Your task to perform on an android device: turn on showing notifications on the lock screen Image 0: 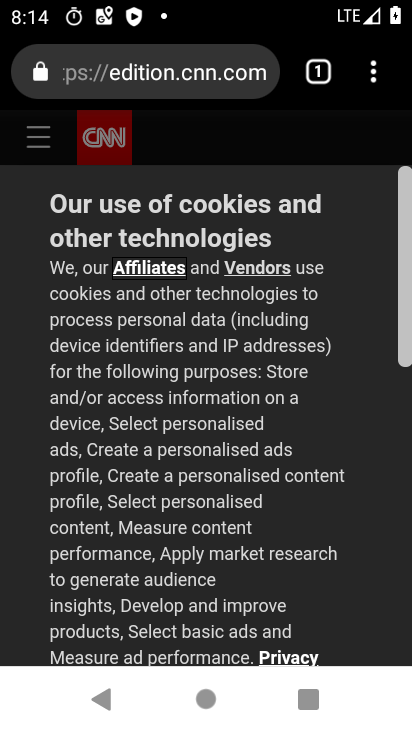
Step 0: press home button
Your task to perform on an android device: turn on showing notifications on the lock screen Image 1: 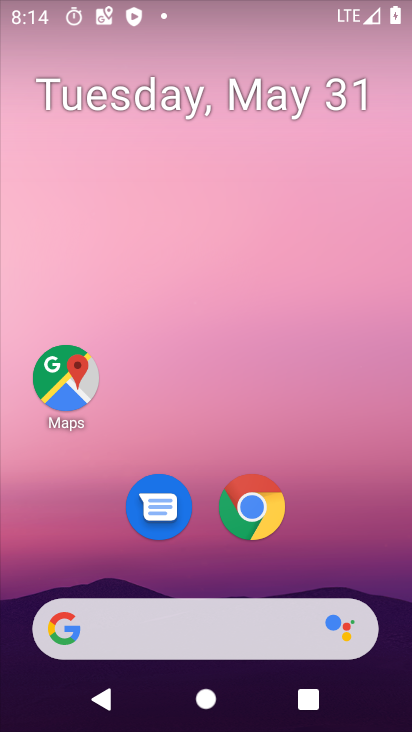
Step 1: drag from (16, 373) to (79, 240)
Your task to perform on an android device: turn on showing notifications on the lock screen Image 2: 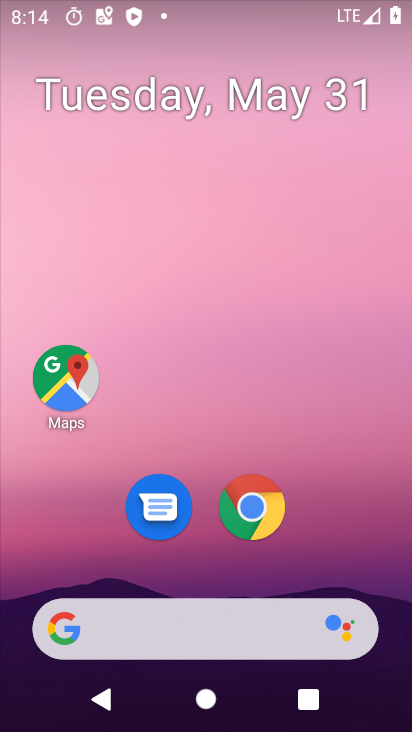
Step 2: drag from (6, 630) to (242, 77)
Your task to perform on an android device: turn on showing notifications on the lock screen Image 3: 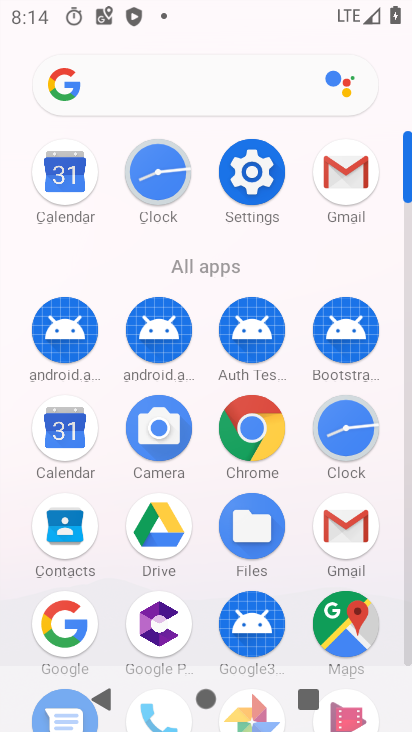
Step 3: click (253, 165)
Your task to perform on an android device: turn on showing notifications on the lock screen Image 4: 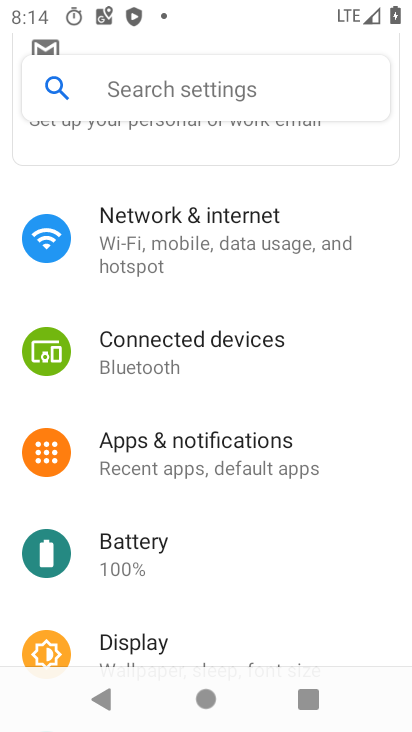
Step 4: click (149, 462)
Your task to perform on an android device: turn on showing notifications on the lock screen Image 5: 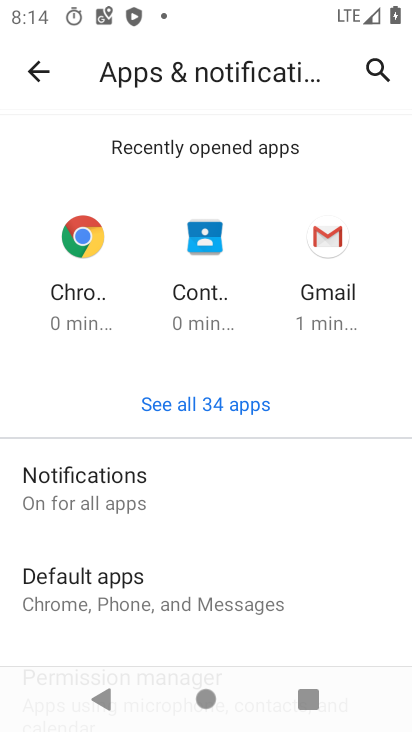
Step 5: drag from (2, 589) to (162, 255)
Your task to perform on an android device: turn on showing notifications on the lock screen Image 6: 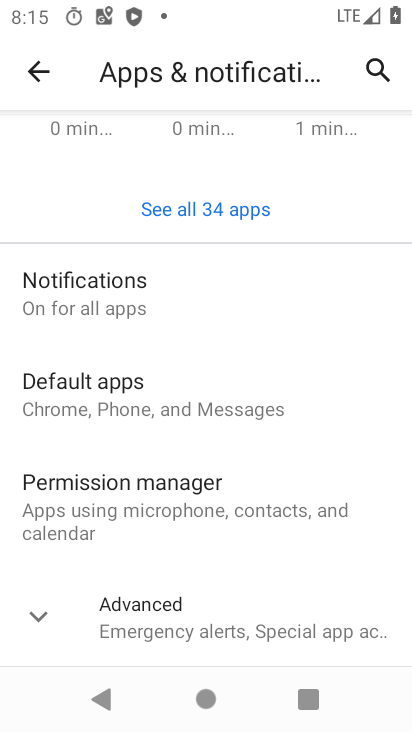
Step 6: click (39, 612)
Your task to perform on an android device: turn on showing notifications on the lock screen Image 7: 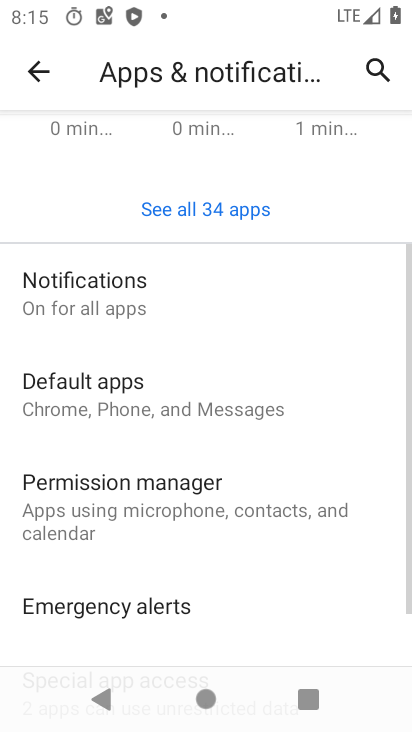
Step 7: drag from (43, 429) to (232, 137)
Your task to perform on an android device: turn on showing notifications on the lock screen Image 8: 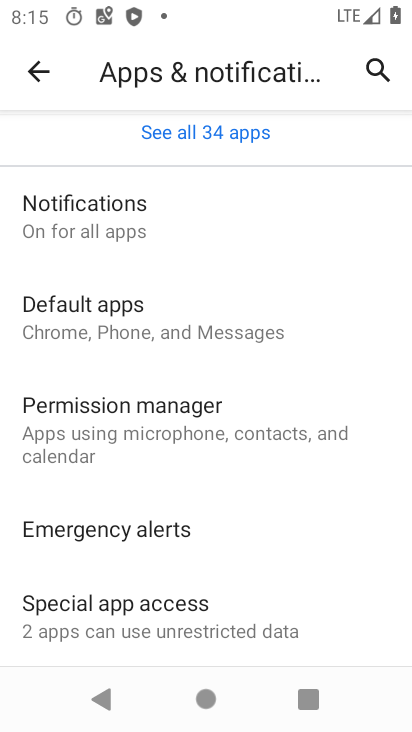
Step 8: drag from (54, 456) to (148, 240)
Your task to perform on an android device: turn on showing notifications on the lock screen Image 9: 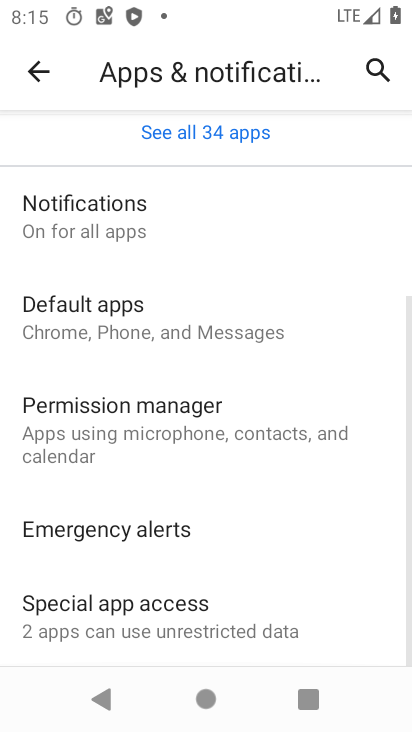
Step 9: click (134, 229)
Your task to perform on an android device: turn on showing notifications on the lock screen Image 10: 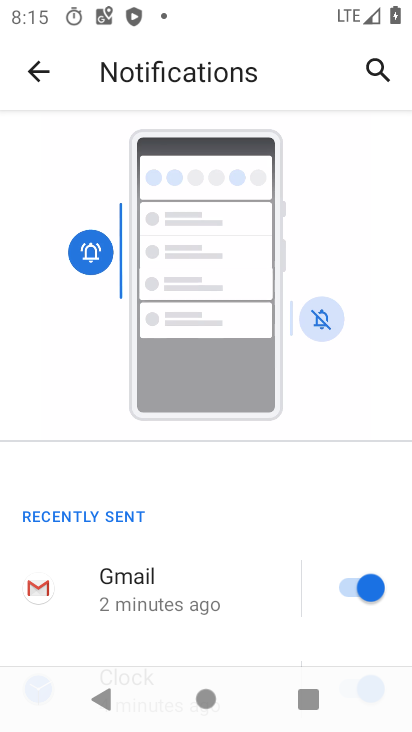
Step 10: drag from (3, 530) to (109, 165)
Your task to perform on an android device: turn on showing notifications on the lock screen Image 11: 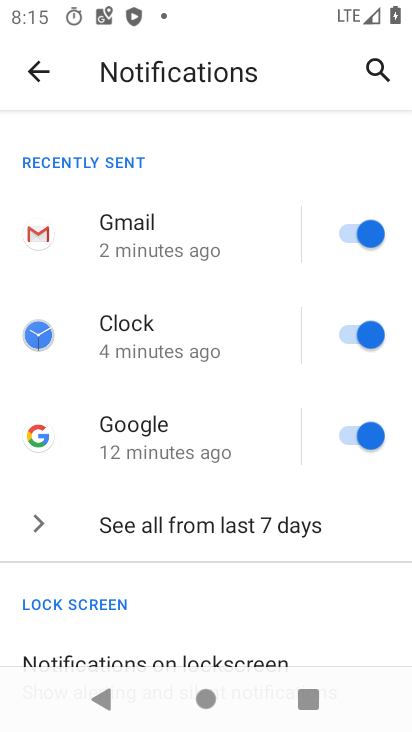
Step 11: drag from (203, 728) to (108, 268)
Your task to perform on an android device: turn on showing notifications on the lock screen Image 12: 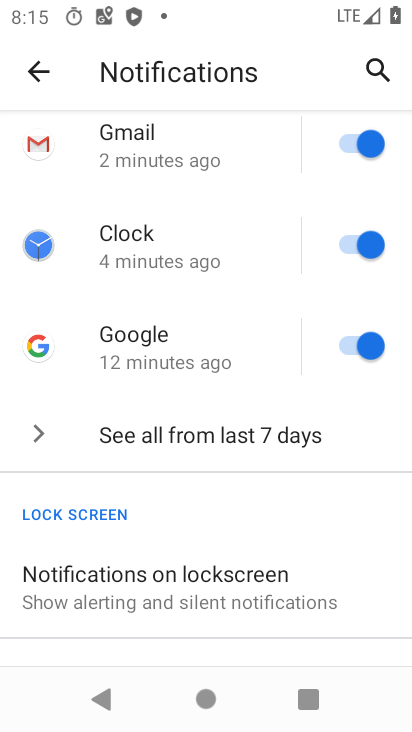
Step 12: click (127, 579)
Your task to perform on an android device: turn on showing notifications on the lock screen Image 13: 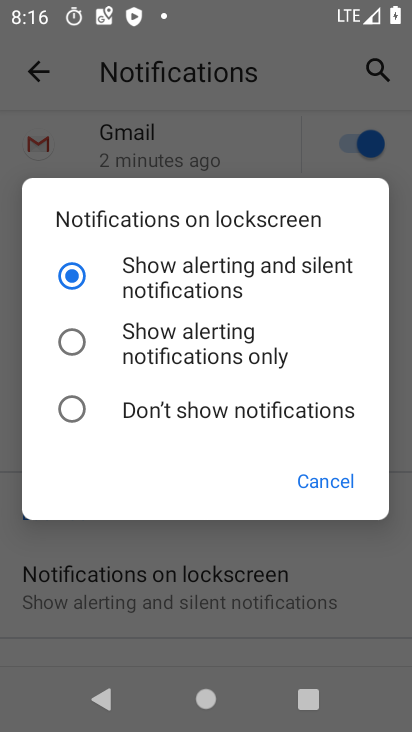
Step 13: click (71, 407)
Your task to perform on an android device: turn on showing notifications on the lock screen Image 14: 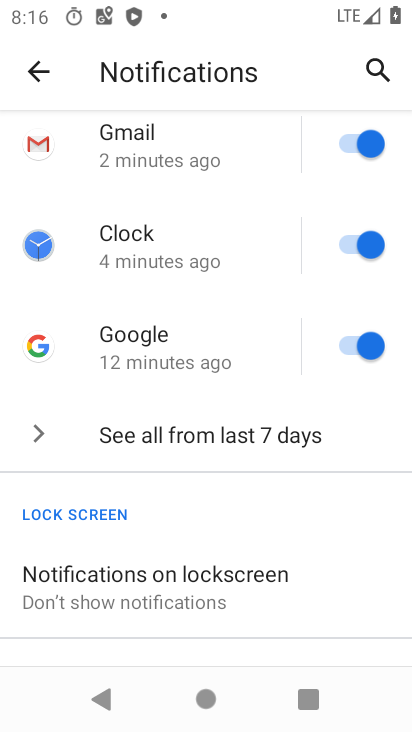
Step 14: task complete